Your task to perform on an android device: manage bookmarks in the chrome app Image 0: 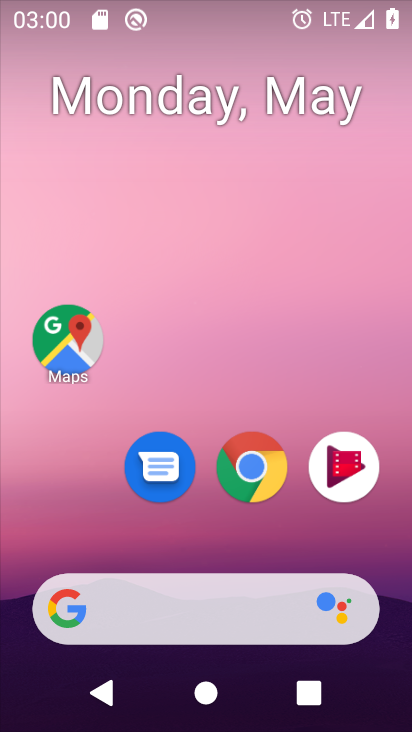
Step 0: click (226, 454)
Your task to perform on an android device: manage bookmarks in the chrome app Image 1: 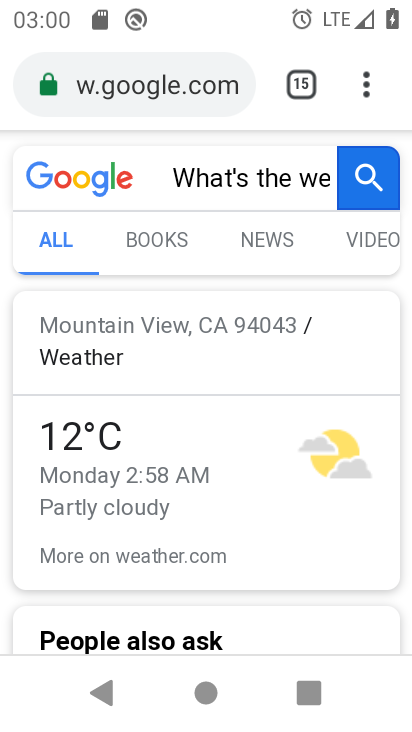
Step 1: click (369, 82)
Your task to perform on an android device: manage bookmarks in the chrome app Image 2: 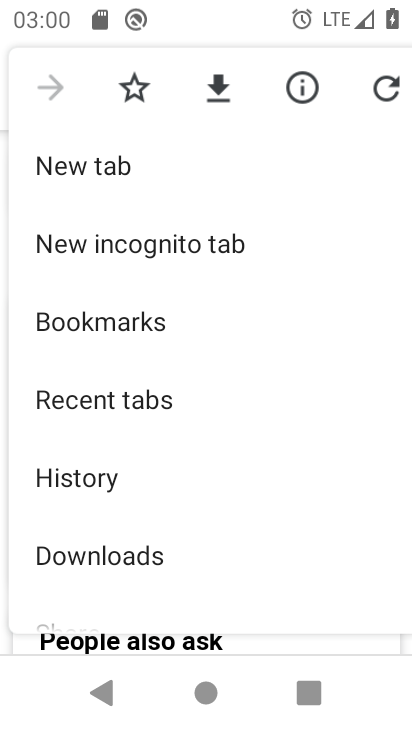
Step 2: drag from (177, 526) to (207, 381)
Your task to perform on an android device: manage bookmarks in the chrome app Image 3: 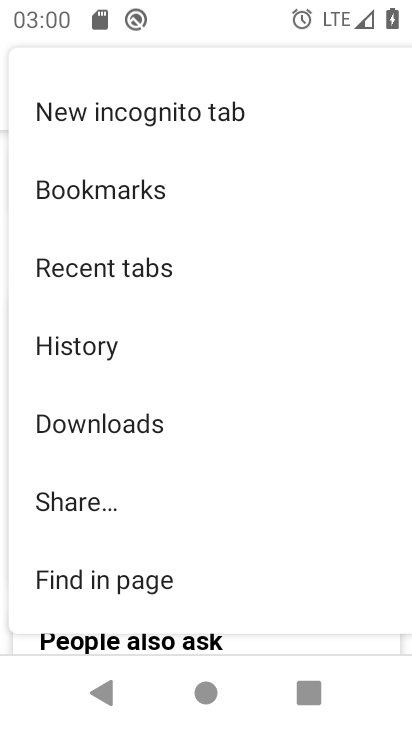
Step 3: click (136, 181)
Your task to perform on an android device: manage bookmarks in the chrome app Image 4: 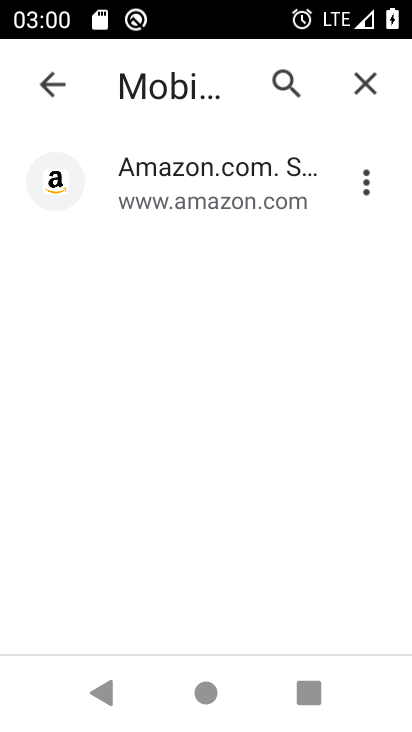
Step 4: click (171, 180)
Your task to perform on an android device: manage bookmarks in the chrome app Image 5: 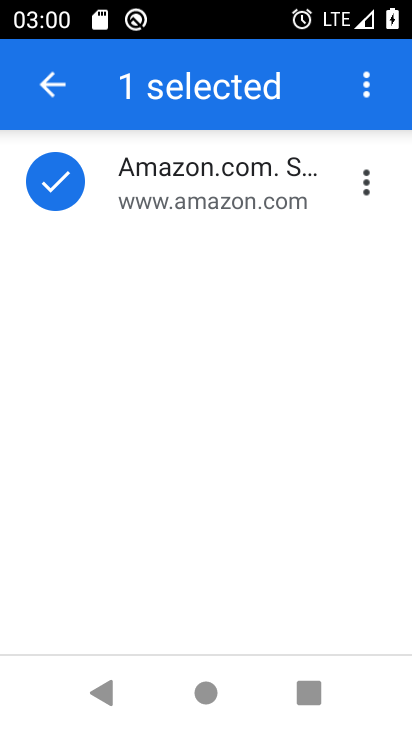
Step 5: click (359, 85)
Your task to perform on an android device: manage bookmarks in the chrome app Image 6: 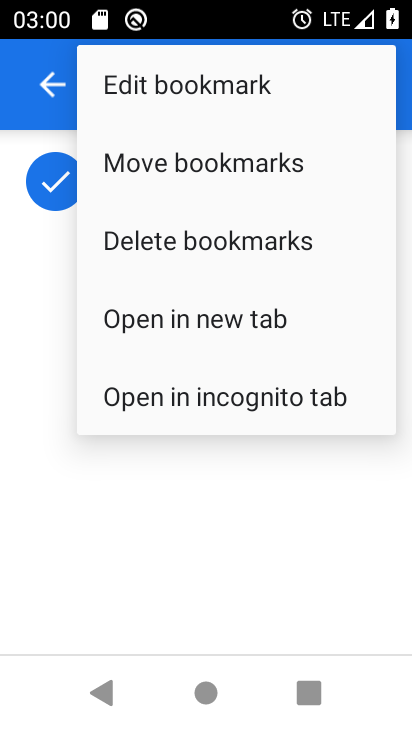
Step 6: click (169, 150)
Your task to perform on an android device: manage bookmarks in the chrome app Image 7: 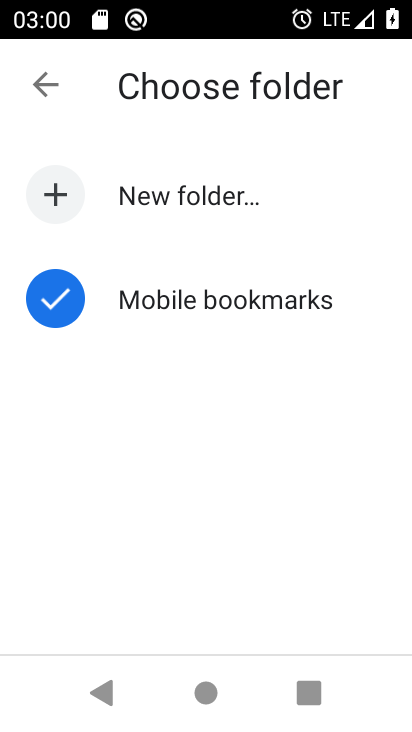
Step 7: click (124, 181)
Your task to perform on an android device: manage bookmarks in the chrome app Image 8: 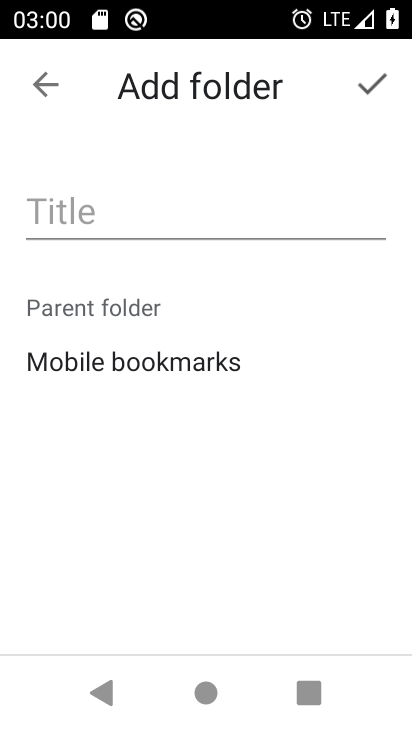
Step 8: click (180, 221)
Your task to perform on an android device: manage bookmarks in the chrome app Image 9: 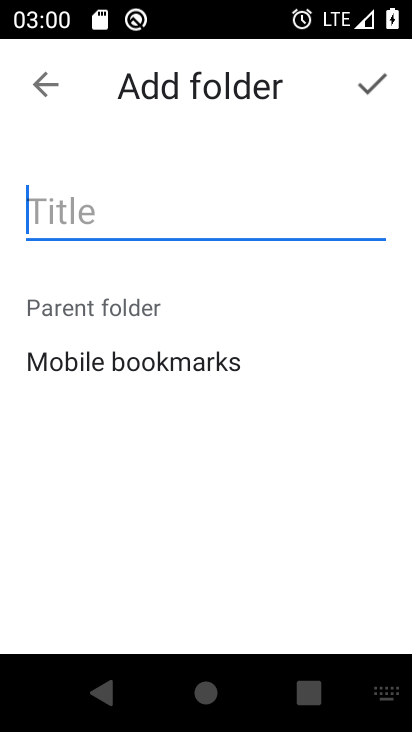
Step 9: type "jnjhj"
Your task to perform on an android device: manage bookmarks in the chrome app Image 10: 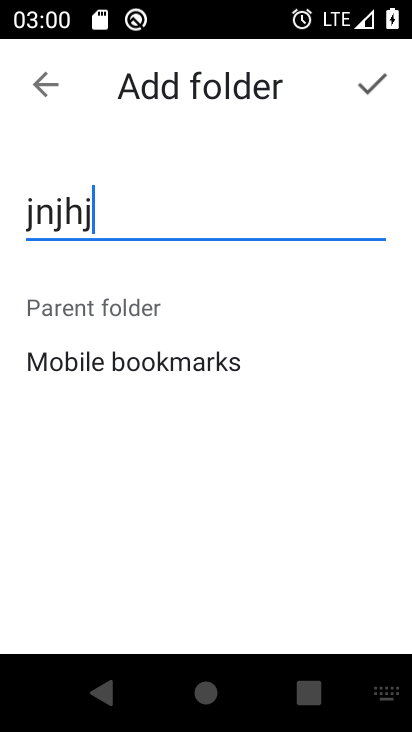
Step 10: click (366, 71)
Your task to perform on an android device: manage bookmarks in the chrome app Image 11: 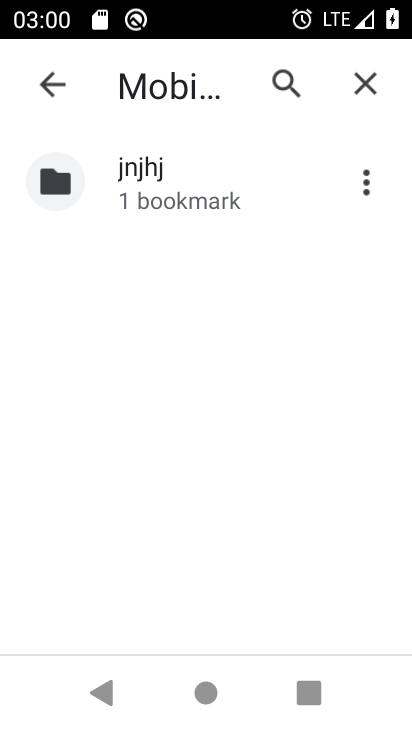
Step 11: task complete